Your task to perform on an android device: visit the assistant section in the google photos Image 0: 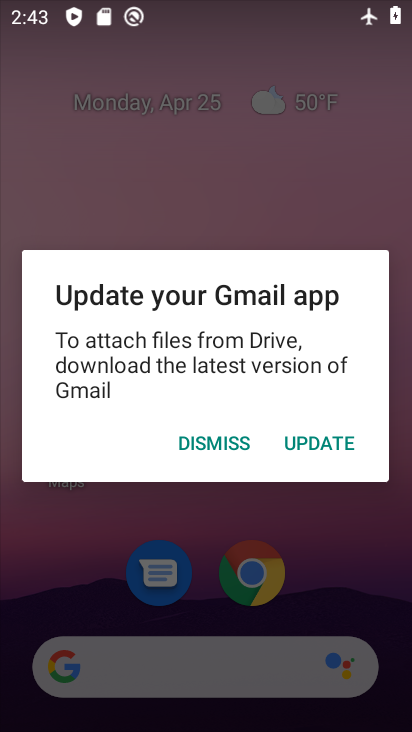
Step 0: press home button
Your task to perform on an android device: visit the assistant section in the google photos Image 1: 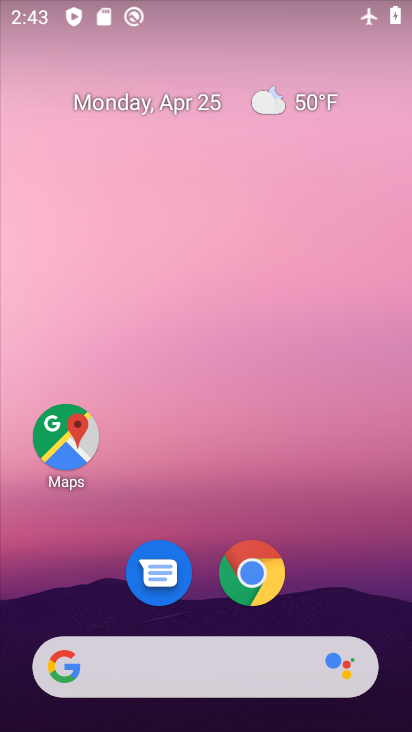
Step 1: drag from (355, 560) to (358, 96)
Your task to perform on an android device: visit the assistant section in the google photos Image 2: 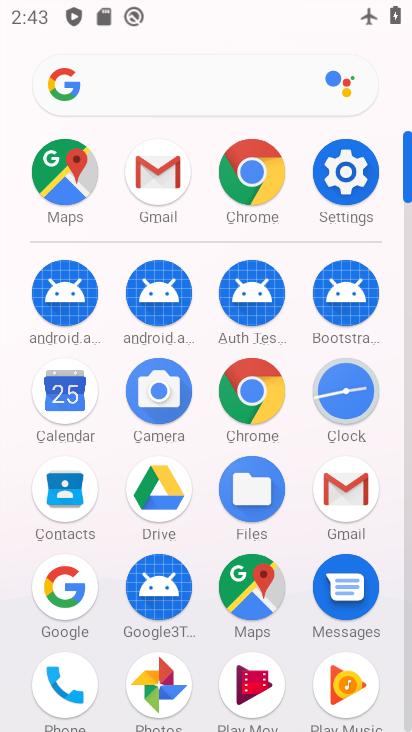
Step 2: drag from (386, 444) to (408, 88)
Your task to perform on an android device: visit the assistant section in the google photos Image 3: 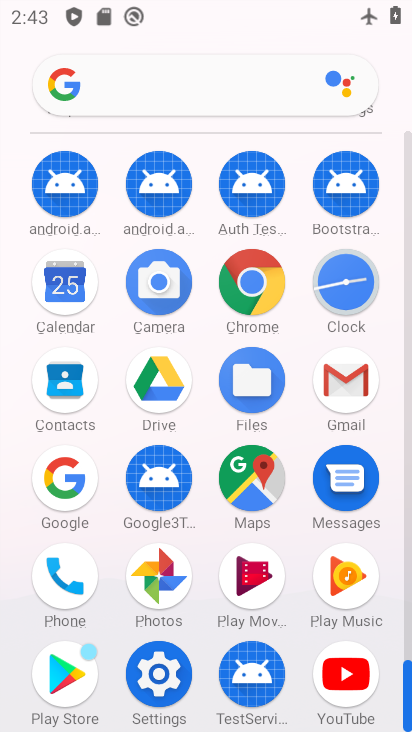
Step 3: click (170, 582)
Your task to perform on an android device: visit the assistant section in the google photos Image 4: 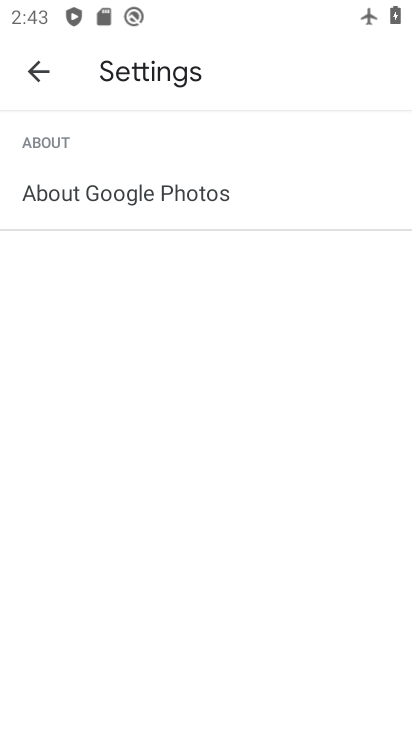
Step 4: click (109, 177)
Your task to perform on an android device: visit the assistant section in the google photos Image 5: 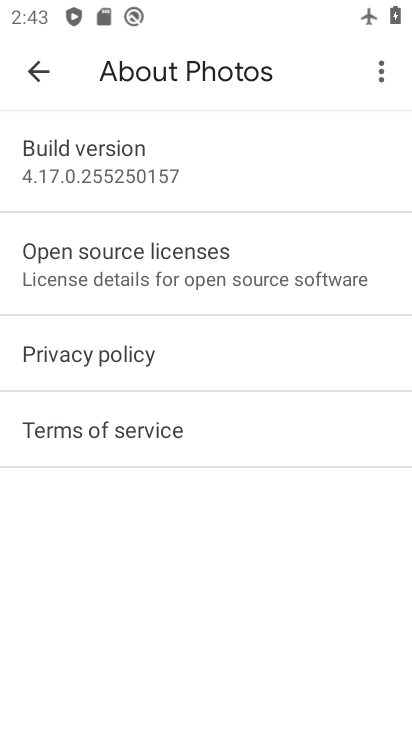
Step 5: click (54, 74)
Your task to perform on an android device: visit the assistant section in the google photos Image 6: 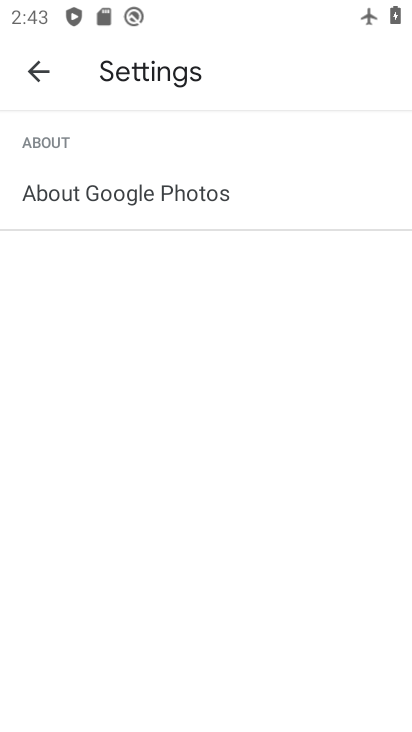
Step 6: click (53, 74)
Your task to perform on an android device: visit the assistant section in the google photos Image 7: 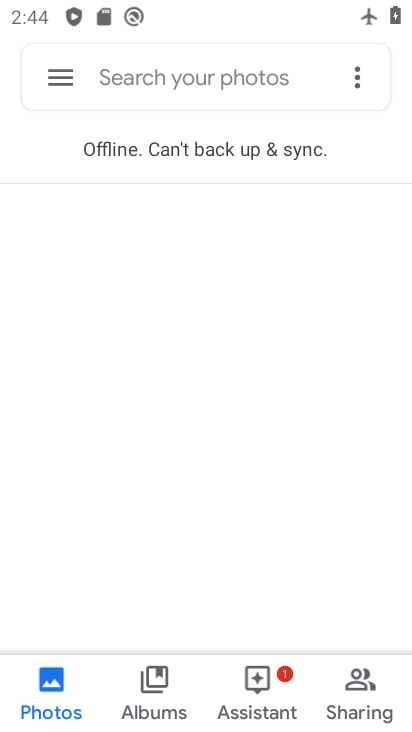
Step 7: click (262, 700)
Your task to perform on an android device: visit the assistant section in the google photos Image 8: 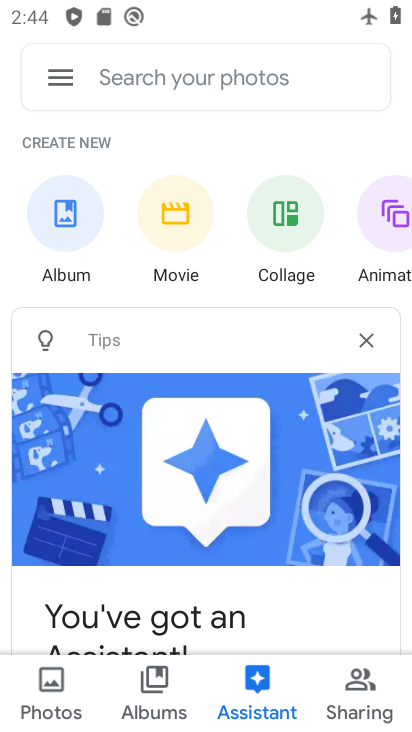
Step 8: task complete